Your task to perform on an android device: Go to CNN.com Image 0: 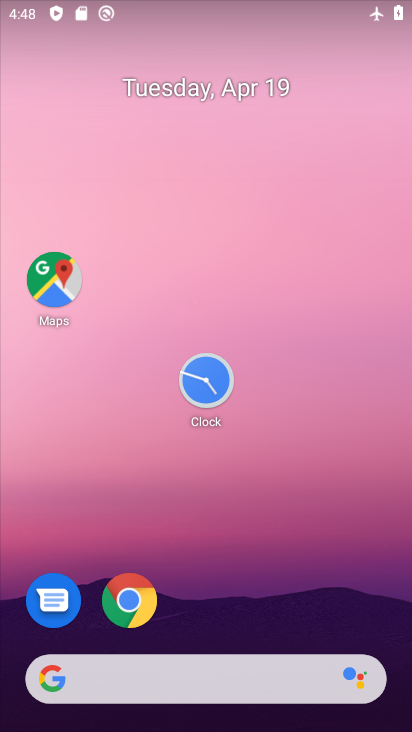
Step 0: drag from (146, 267) to (115, 178)
Your task to perform on an android device: Go to CNN.com Image 1: 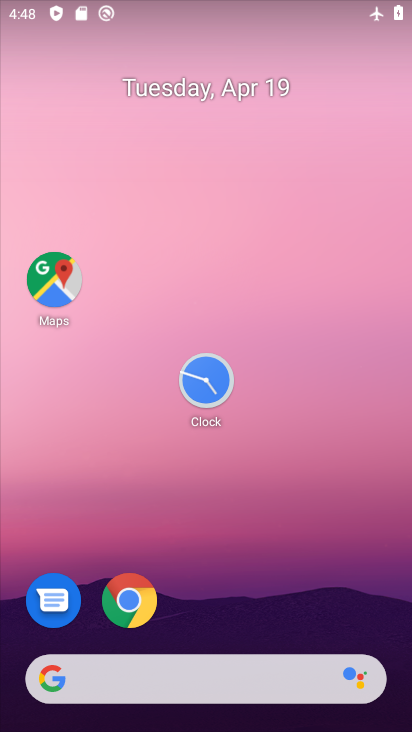
Step 1: drag from (286, 647) to (198, 5)
Your task to perform on an android device: Go to CNN.com Image 2: 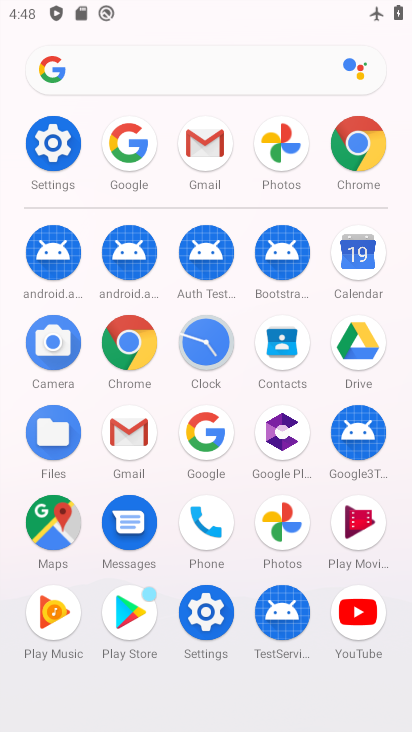
Step 2: click (354, 160)
Your task to perform on an android device: Go to CNN.com Image 3: 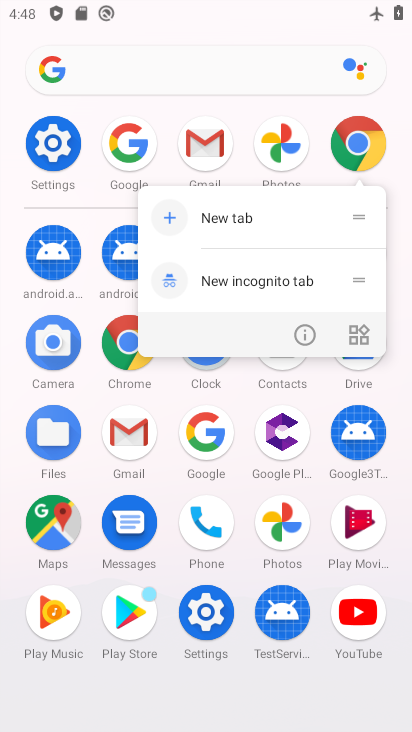
Step 3: click (356, 144)
Your task to perform on an android device: Go to CNN.com Image 4: 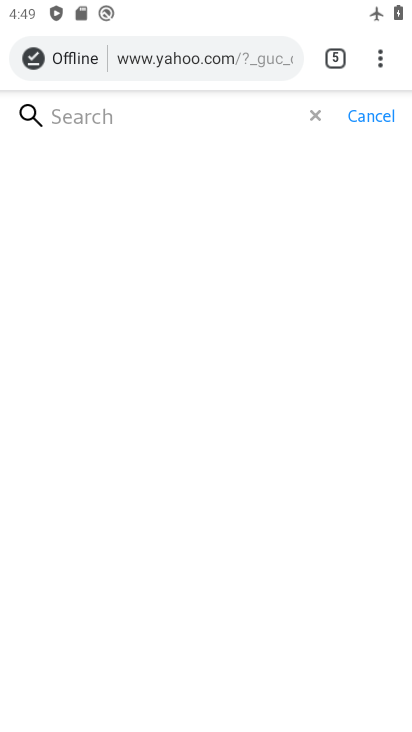
Step 4: click (312, 117)
Your task to perform on an android device: Go to CNN.com Image 5: 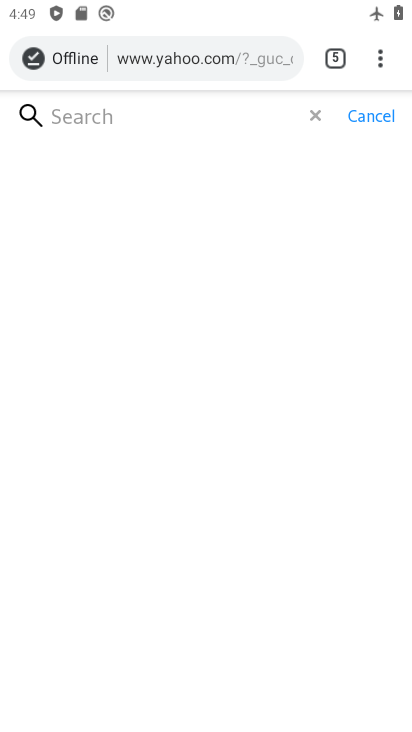
Step 5: click (197, 59)
Your task to perform on an android device: Go to CNN.com Image 6: 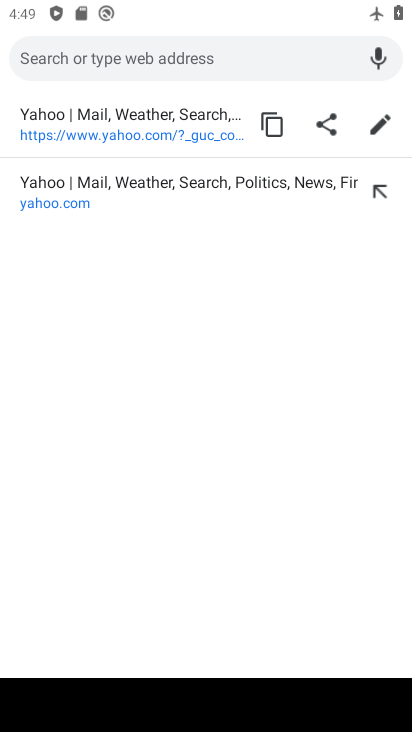
Step 6: press home button
Your task to perform on an android device: Go to CNN.com Image 7: 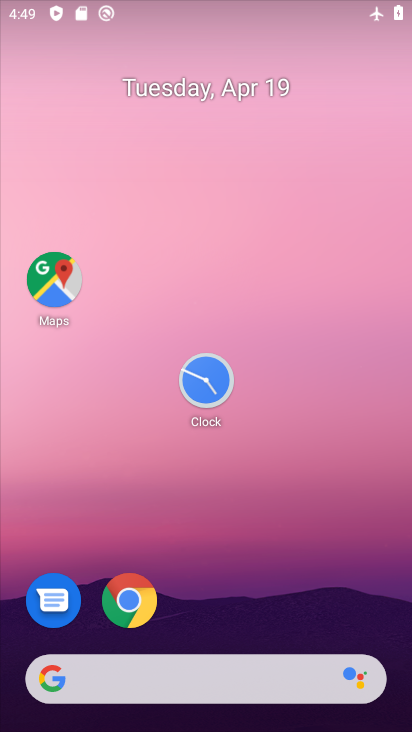
Step 7: press back button
Your task to perform on an android device: Go to CNN.com Image 8: 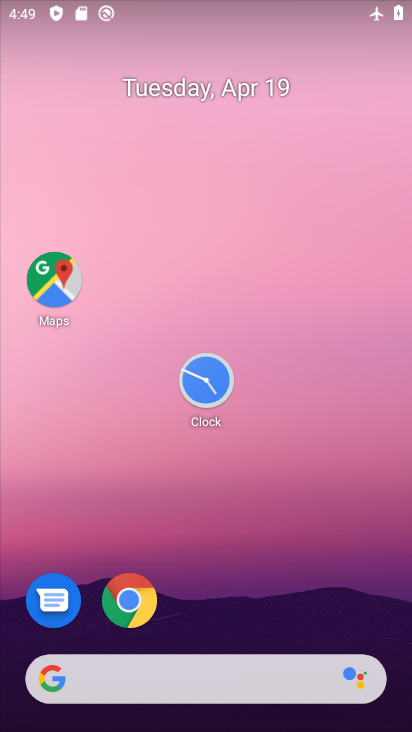
Step 8: drag from (322, 584) to (144, 62)
Your task to perform on an android device: Go to CNN.com Image 9: 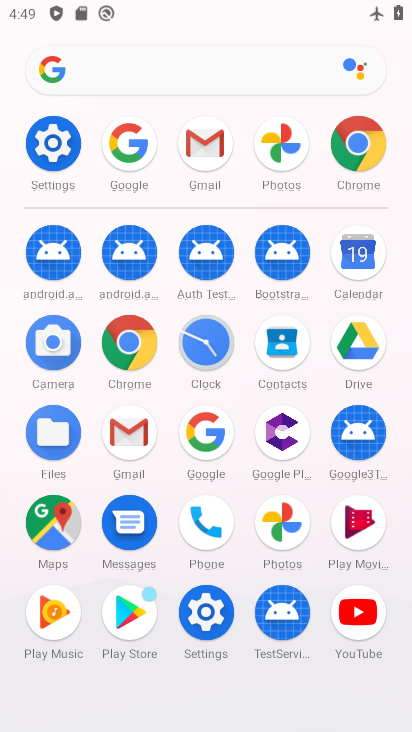
Step 9: click (353, 148)
Your task to perform on an android device: Go to CNN.com Image 10: 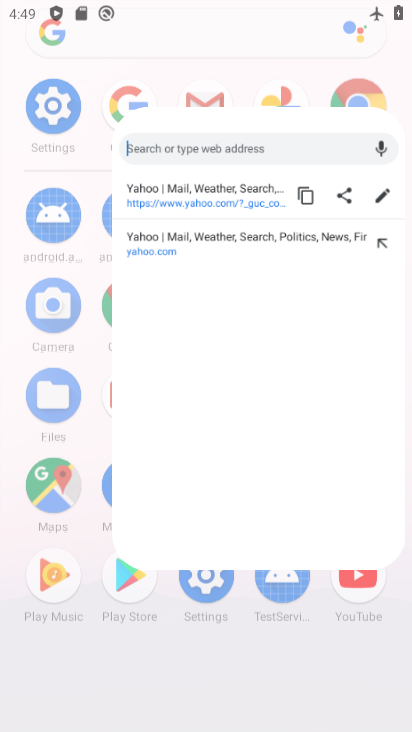
Step 10: click (354, 149)
Your task to perform on an android device: Go to CNN.com Image 11: 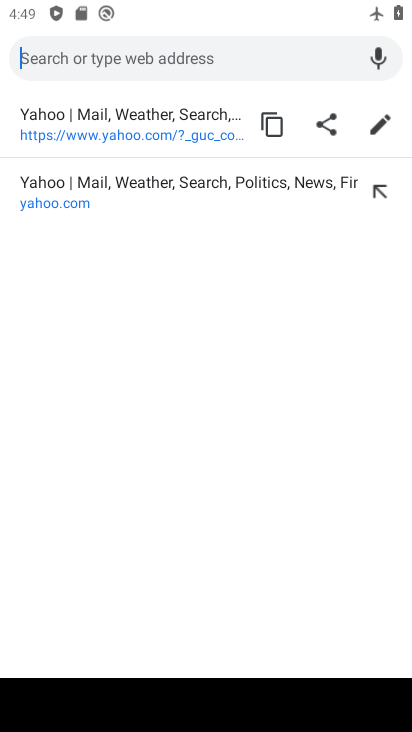
Step 11: click (48, 49)
Your task to perform on an android device: Go to CNN.com Image 12: 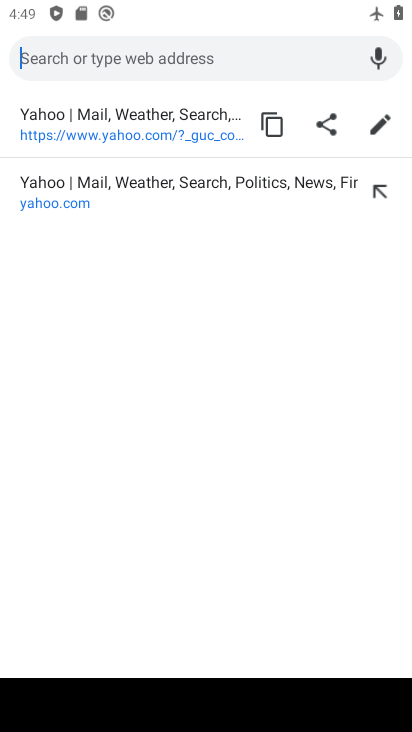
Step 12: click (221, 56)
Your task to perform on an android device: Go to CNN.com Image 13: 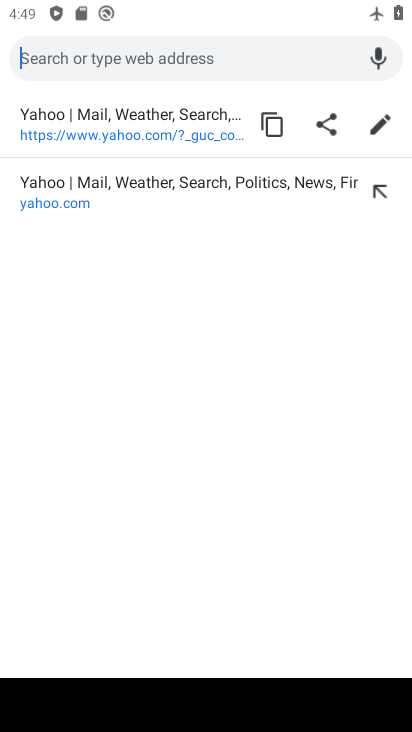
Step 13: press home button
Your task to perform on an android device: Go to CNN.com Image 14: 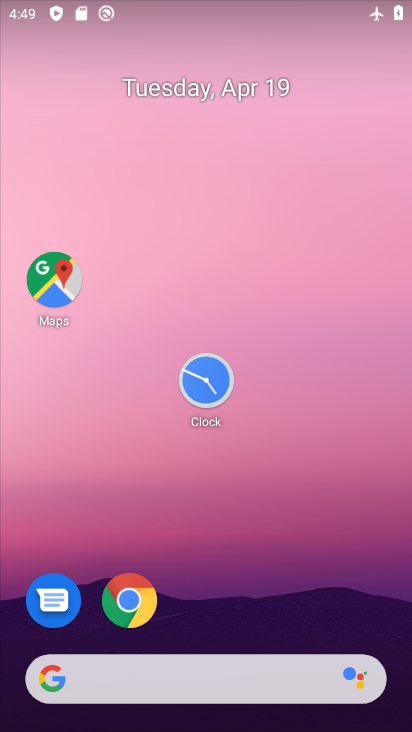
Step 14: drag from (301, 572) to (152, 128)
Your task to perform on an android device: Go to CNN.com Image 15: 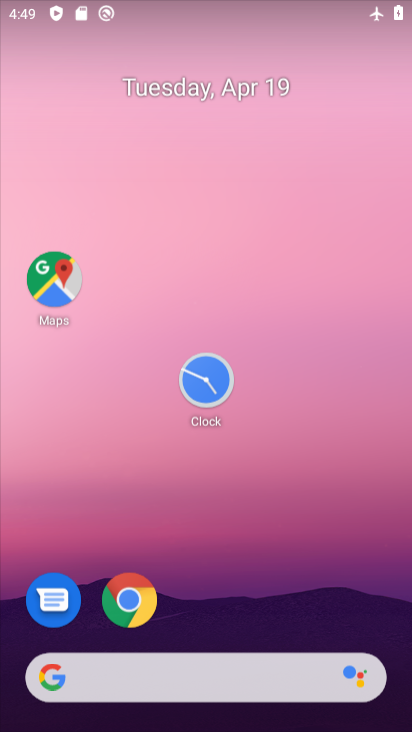
Step 15: drag from (223, 651) to (77, 129)
Your task to perform on an android device: Go to CNN.com Image 16: 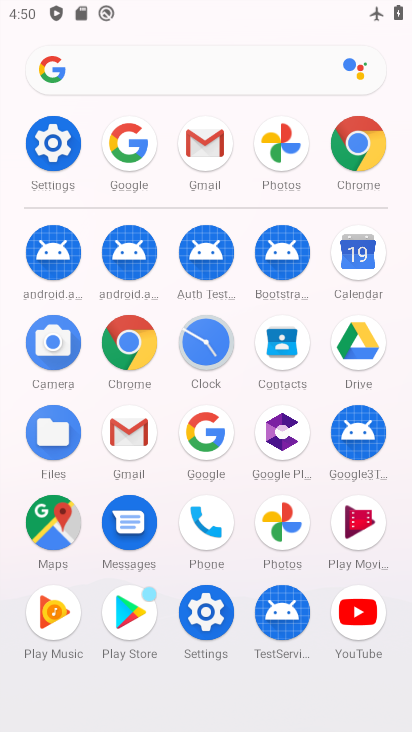
Step 16: click (351, 147)
Your task to perform on an android device: Go to CNN.com Image 17: 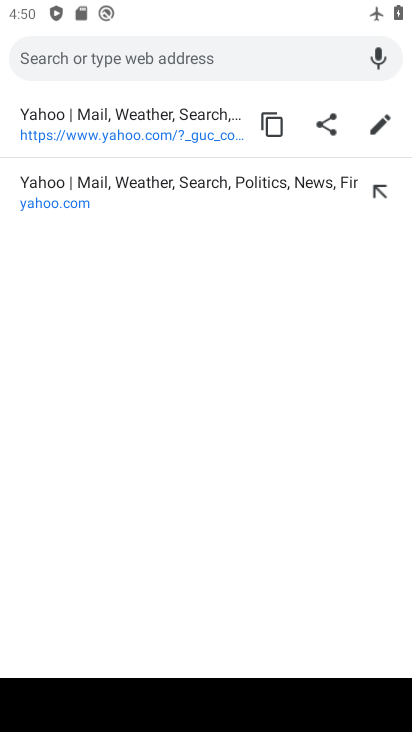
Step 17: click (52, 47)
Your task to perform on an android device: Go to CNN.com Image 18: 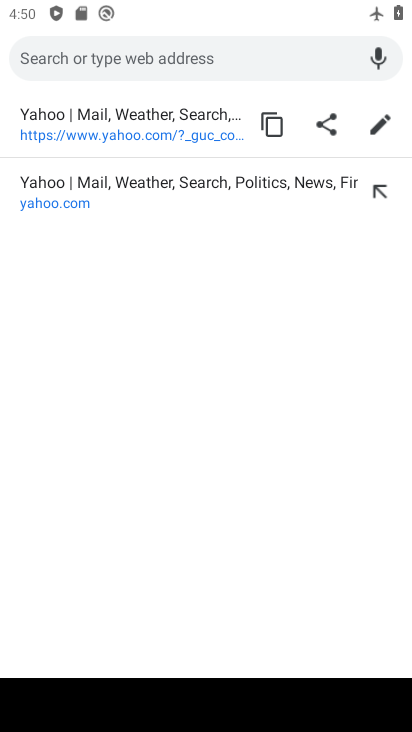
Step 18: click (65, 60)
Your task to perform on an android device: Go to CNN.com Image 19: 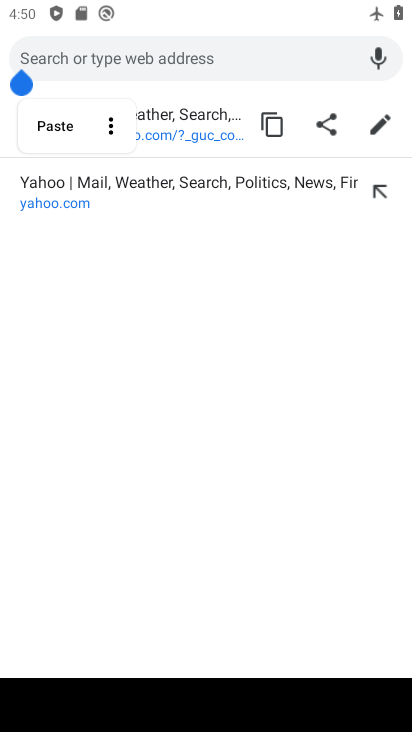
Step 19: press back button
Your task to perform on an android device: Go to CNN.com Image 20: 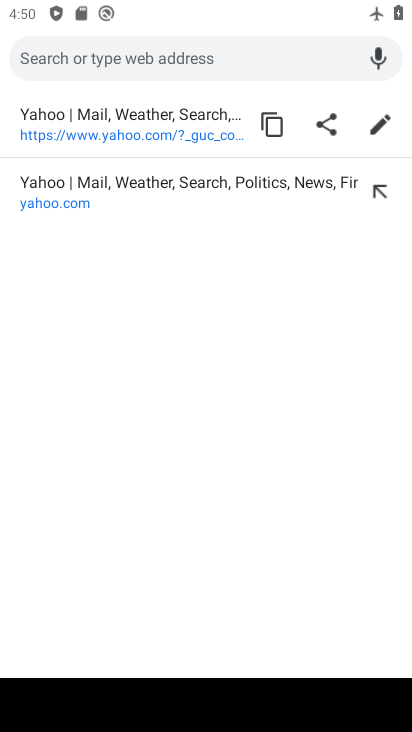
Step 20: press back button
Your task to perform on an android device: Go to CNN.com Image 21: 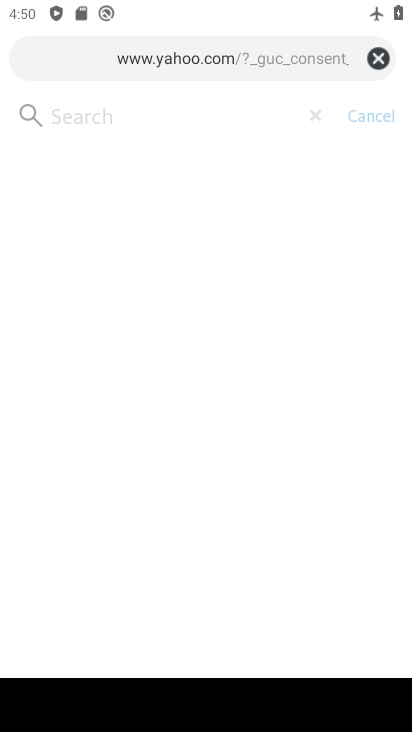
Step 21: press back button
Your task to perform on an android device: Go to CNN.com Image 22: 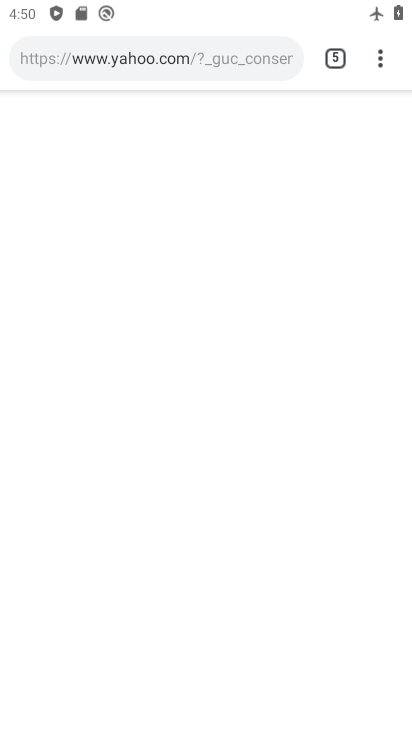
Step 22: press back button
Your task to perform on an android device: Go to CNN.com Image 23: 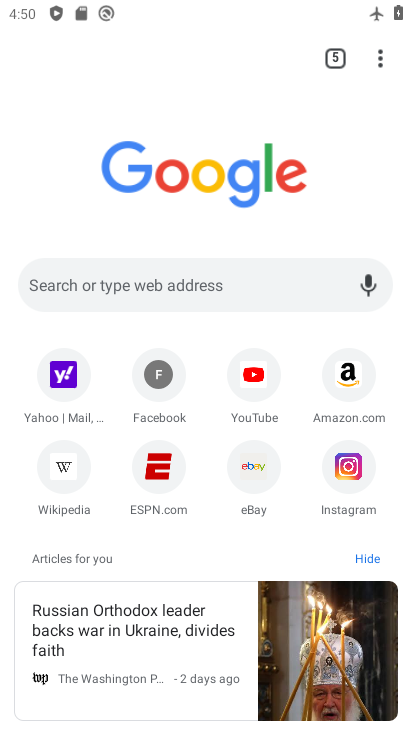
Step 23: press back button
Your task to perform on an android device: Go to CNN.com Image 24: 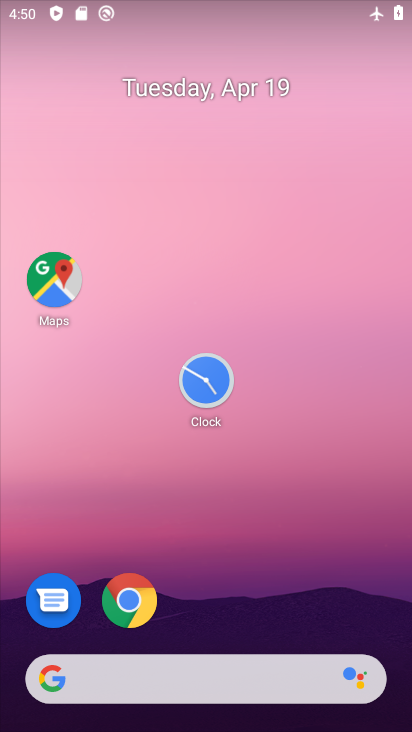
Step 24: click (122, 589)
Your task to perform on an android device: Go to CNN.com Image 25: 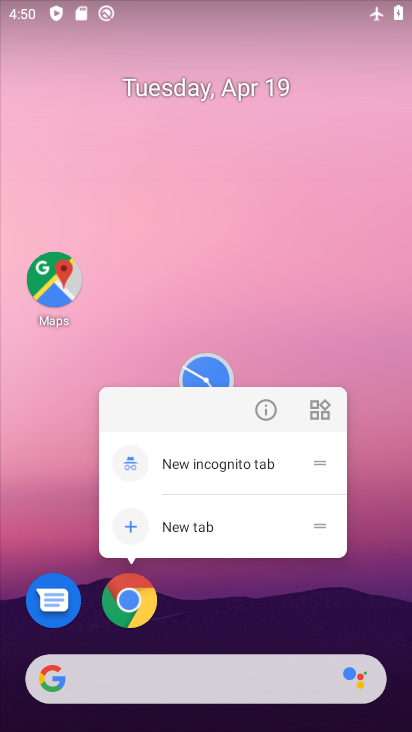
Step 25: click (125, 610)
Your task to perform on an android device: Go to CNN.com Image 26: 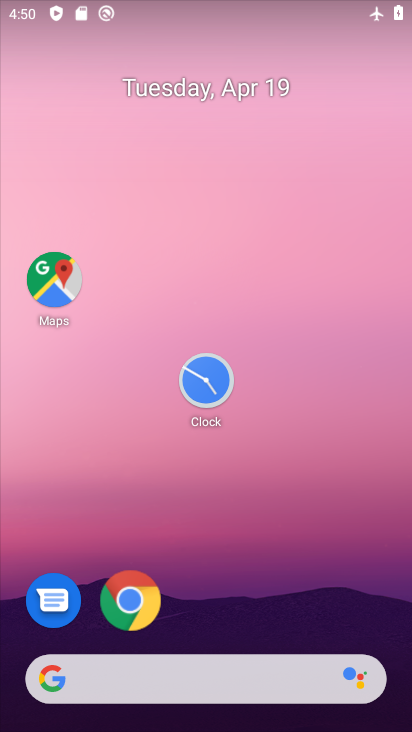
Step 26: click (123, 605)
Your task to perform on an android device: Go to CNN.com Image 27: 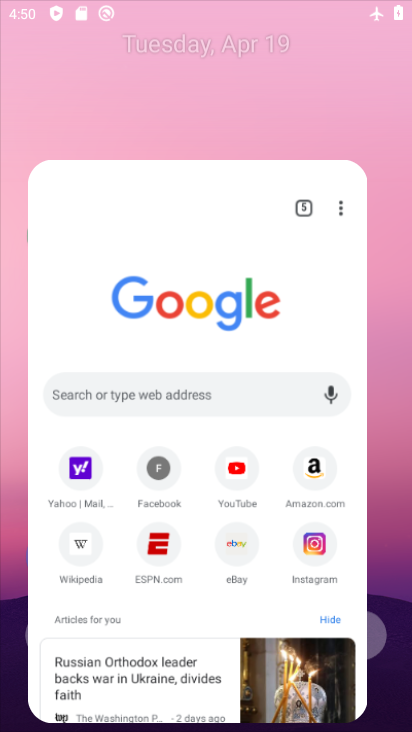
Step 27: click (126, 602)
Your task to perform on an android device: Go to CNN.com Image 28: 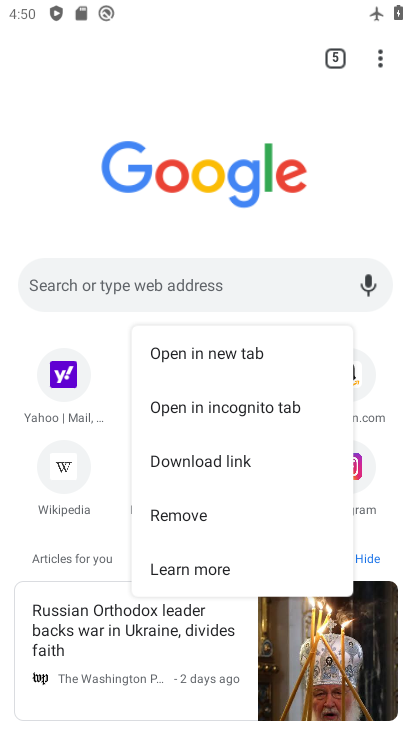
Step 28: click (355, 216)
Your task to perform on an android device: Go to CNN.com Image 29: 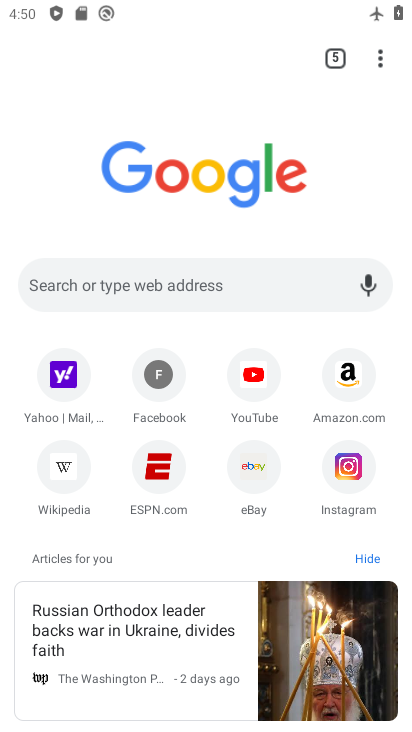
Step 29: click (57, 284)
Your task to perform on an android device: Go to CNN.com Image 30: 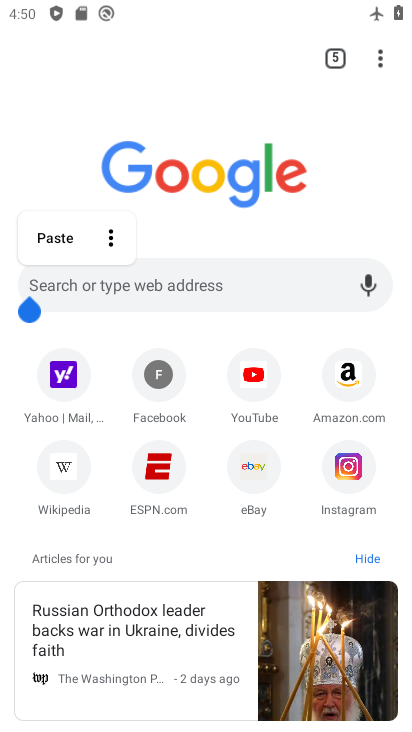
Step 30: click (74, 283)
Your task to perform on an android device: Go to CNN.com Image 31: 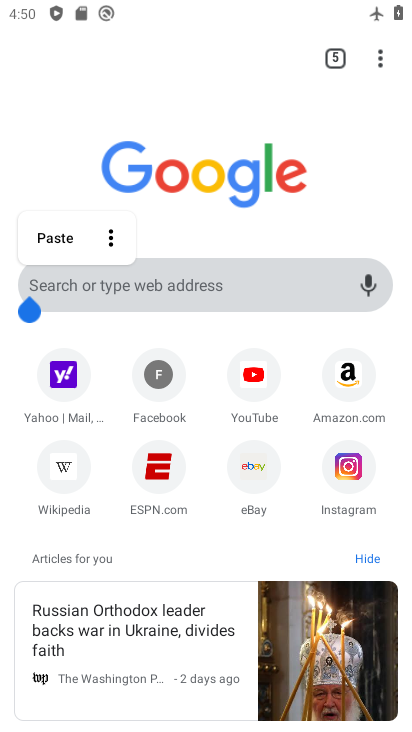
Step 31: click (76, 282)
Your task to perform on an android device: Go to CNN.com Image 32: 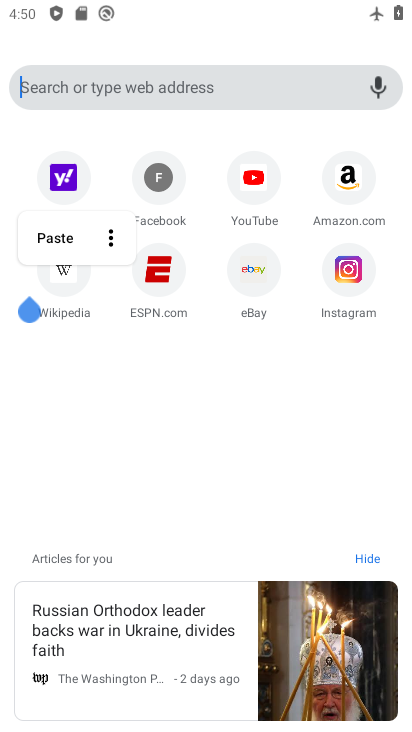
Step 32: click (79, 281)
Your task to perform on an android device: Go to CNN.com Image 33: 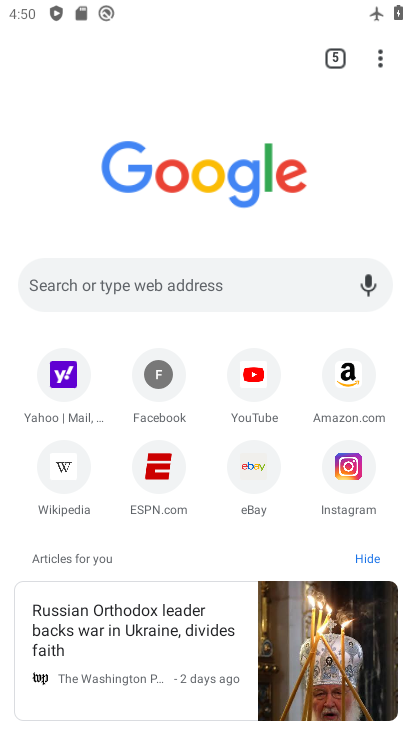
Step 33: click (95, 281)
Your task to perform on an android device: Go to CNN.com Image 34: 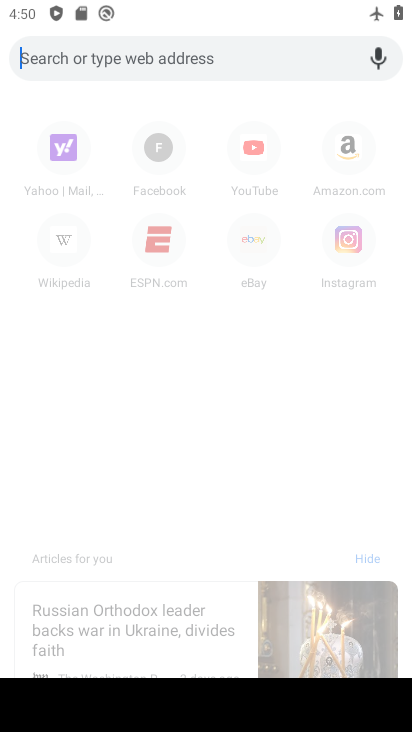
Step 34: type "cnn.com"
Your task to perform on an android device: Go to CNN.com Image 35: 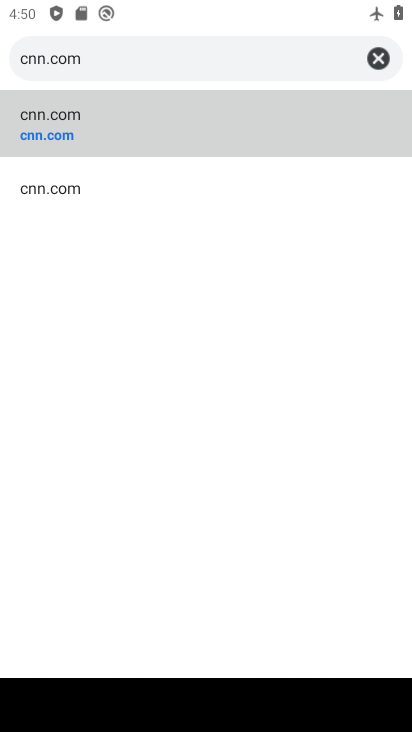
Step 35: click (50, 130)
Your task to perform on an android device: Go to CNN.com Image 36: 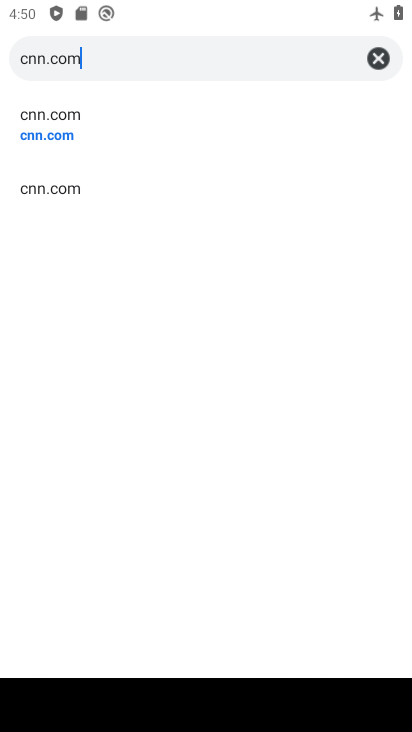
Step 36: click (62, 123)
Your task to perform on an android device: Go to CNN.com Image 37: 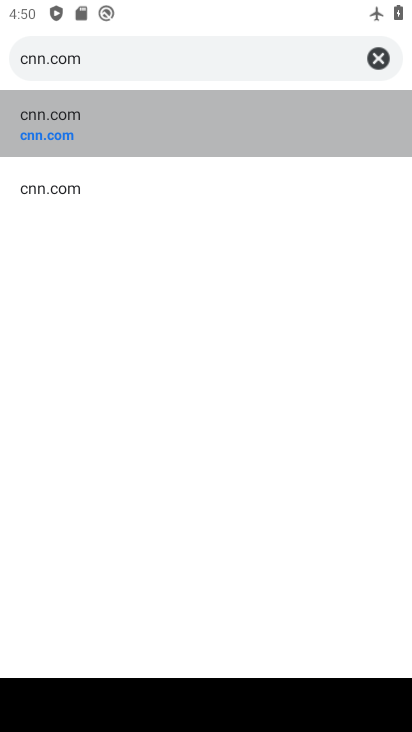
Step 37: click (62, 123)
Your task to perform on an android device: Go to CNN.com Image 38: 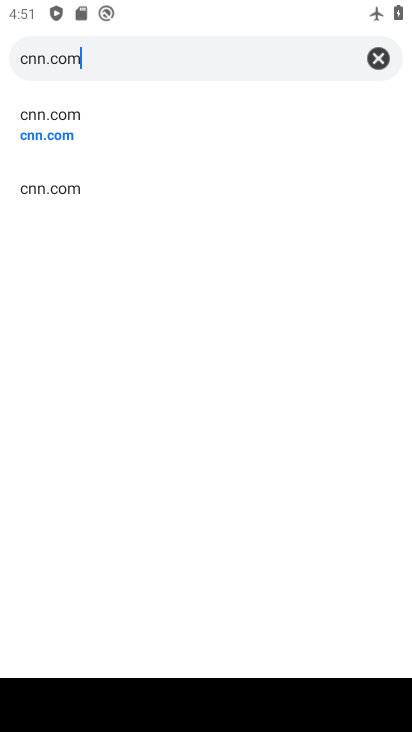
Step 38: click (53, 118)
Your task to perform on an android device: Go to CNN.com Image 39: 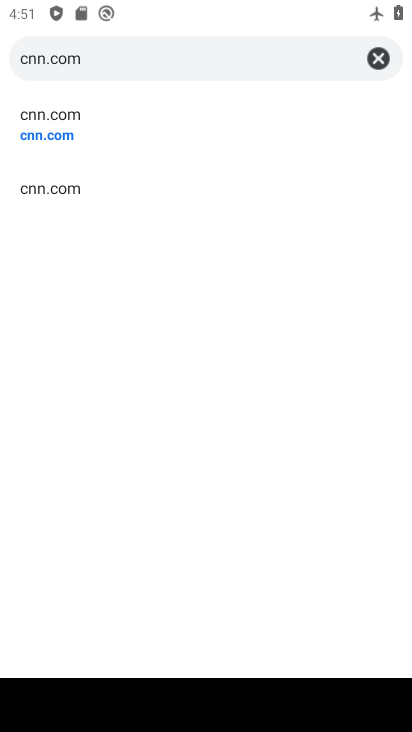
Step 39: click (54, 119)
Your task to perform on an android device: Go to CNN.com Image 40: 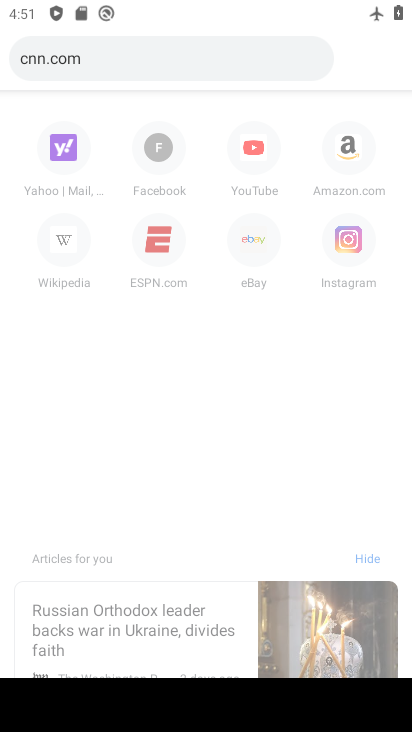
Step 40: click (155, 45)
Your task to perform on an android device: Go to CNN.com Image 41: 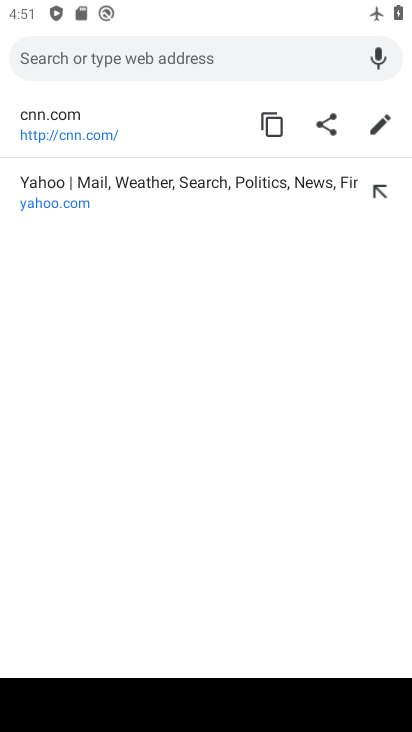
Step 41: click (45, 136)
Your task to perform on an android device: Go to CNN.com Image 42: 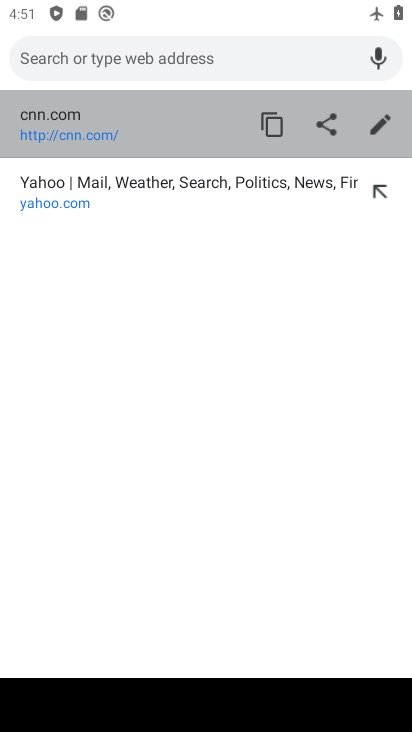
Step 42: click (45, 136)
Your task to perform on an android device: Go to CNN.com Image 43: 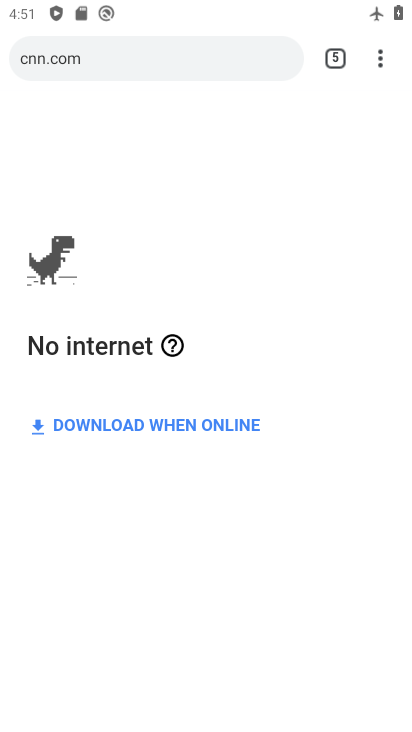
Step 43: task complete